Your task to perform on an android device: allow cookies in the chrome app Image 0: 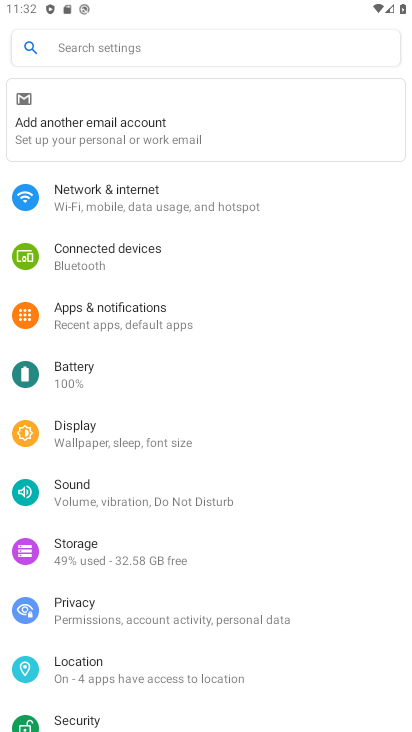
Step 0: press home button
Your task to perform on an android device: allow cookies in the chrome app Image 1: 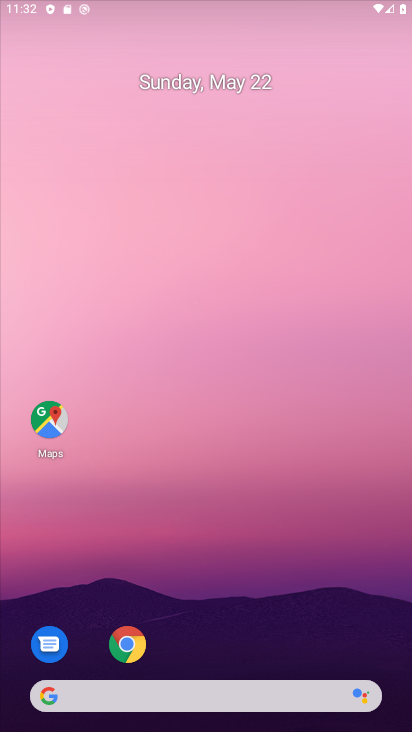
Step 1: drag from (321, 456) to (270, 92)
Your task to perform on an android device: allow cookies in the chrome app Image 2: 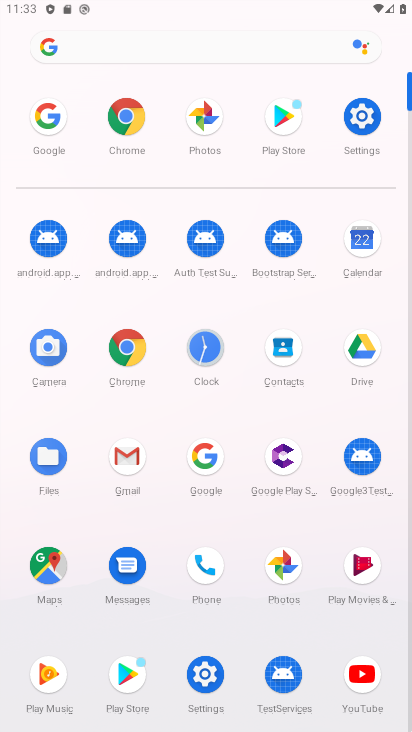
Step 2: click (133, 118)
Your task to perform on an android device: allow cookies in the chrome app Image 3: 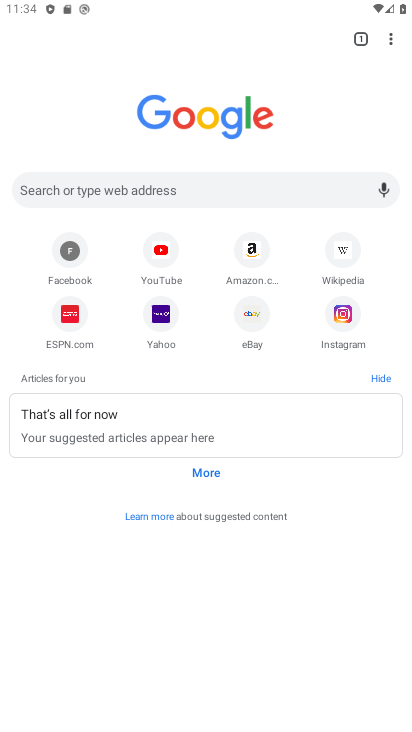
Step 3: click (392, 38)
Your task to perform on an android device: allow cookies in the chrome app Image 4: 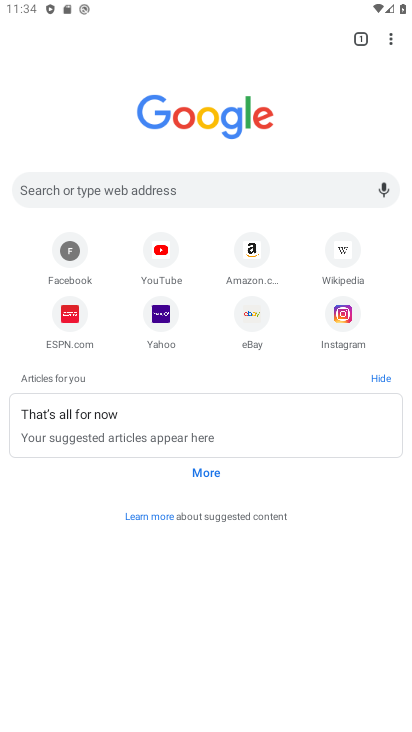
Step 4: click (388, 33)
Your task to perform on an android device: allow cookies in the chrome app Image 5: 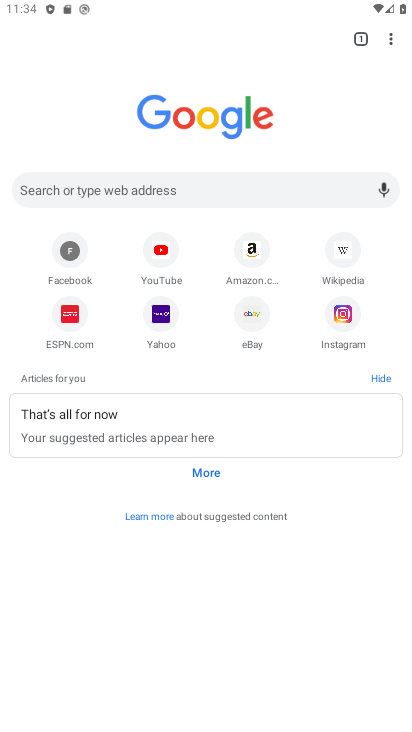
Step 5: click (391, 32)
Your task to perform on an android device: allow cookies in the chrome app Image 6: 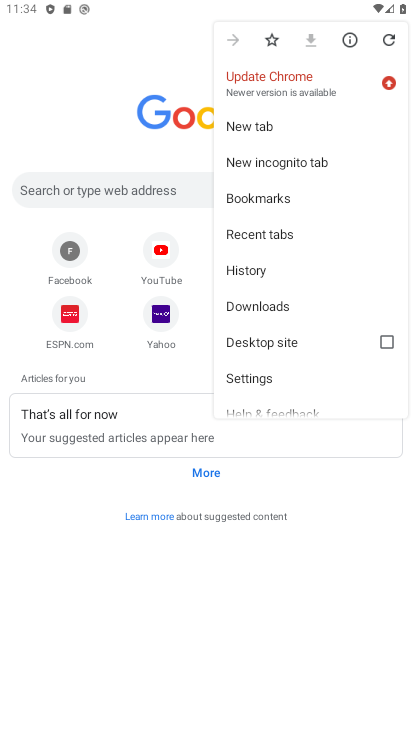
Step 6: click (266, 371)
Your task to perform on an android device: allow cookies in the chrome app Image 7: 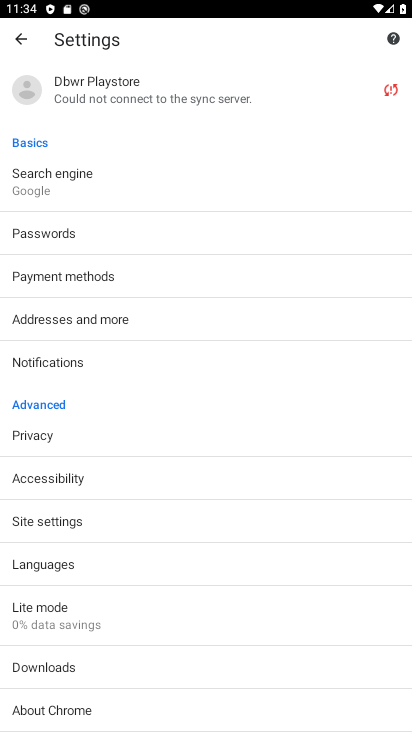
Step 7: click (86, 521)
Your task to perform on an android device: allow cookies in the chrome app Image 8: 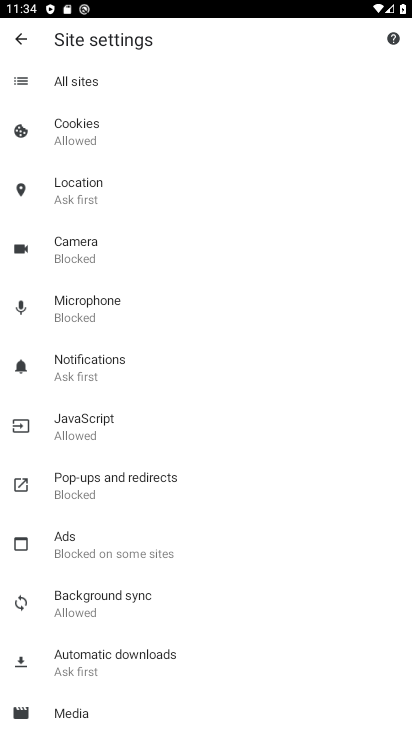
Step 8: click (114, 132)
Your task to perform on an android device: allow cookies in the chrome app Image 9: 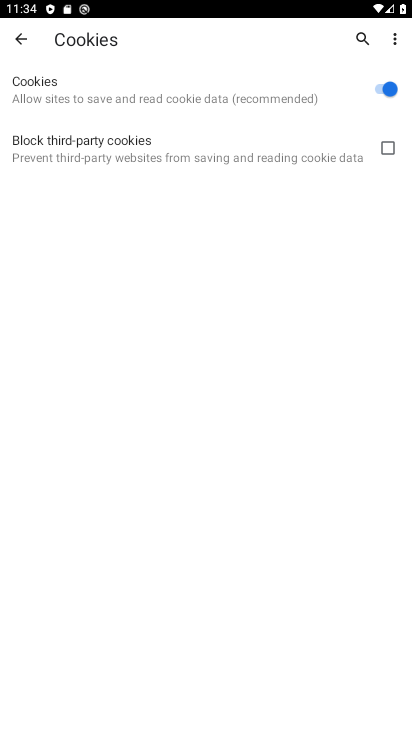
Step 9: task complete